Your task to perform on an android device: open a new tab in the chrome app Image 0: 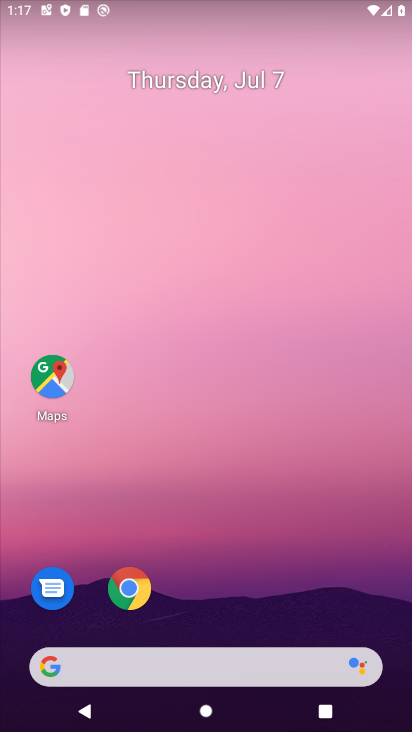
Step 0: drag from (360, 646) to (334, 225)
Your task to perform on an android device: open a new tab in the chrome app Image 1: 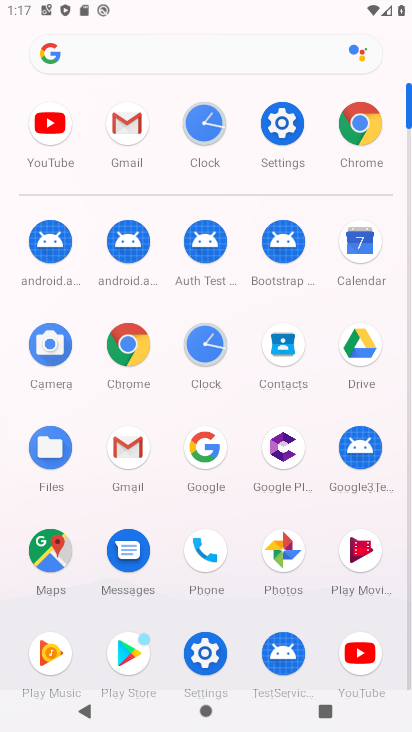
Step 1: click (361, 117)
Your task to perform on an android device: open a new tab in the chrome app Image 2: 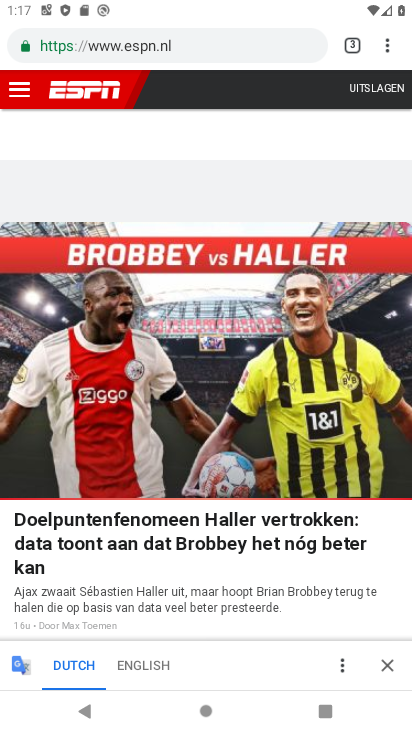
Step 2: click (385, 53)
Your task to perform on an android device: open a new tab in the chrome app Image 3: 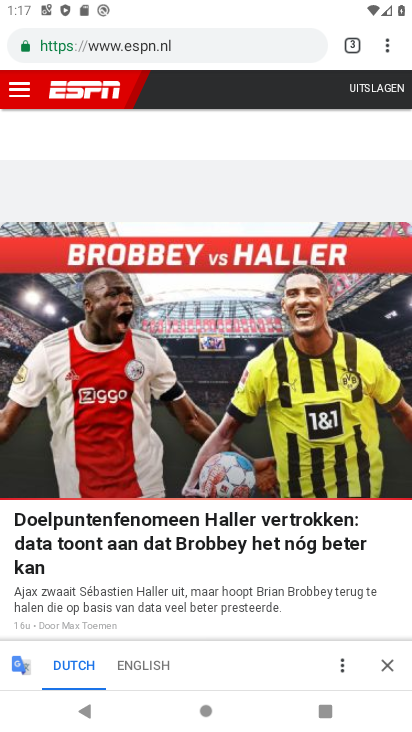
Step 3: click (373, 35)
Your task to perform on an android device: open a new tab in the chrome app Image 4: 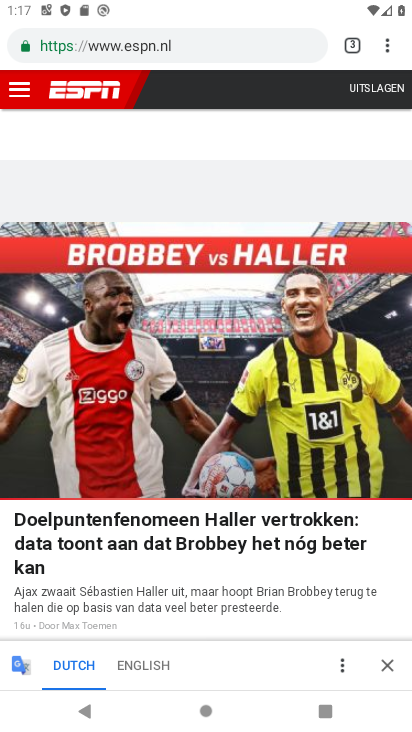
Step 4: click (386, 51)
Your task to perform on an android device: open a new tab in the chrome app Image 5: 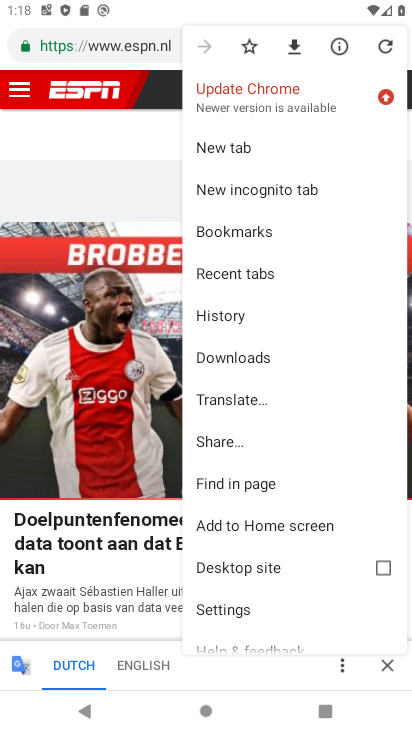
Step 5: click (252, 148)
Your task to perform on an android device: open a new tab in the chrome app Image 6: 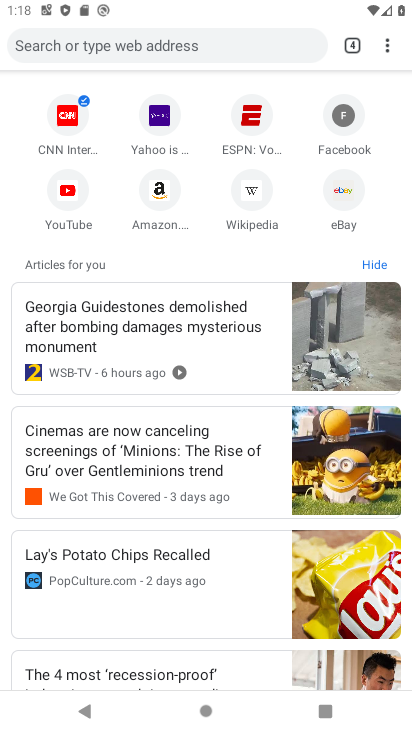
Step 6: task complete